Your task to perform on an android device: Open Reddit.com Image 0: 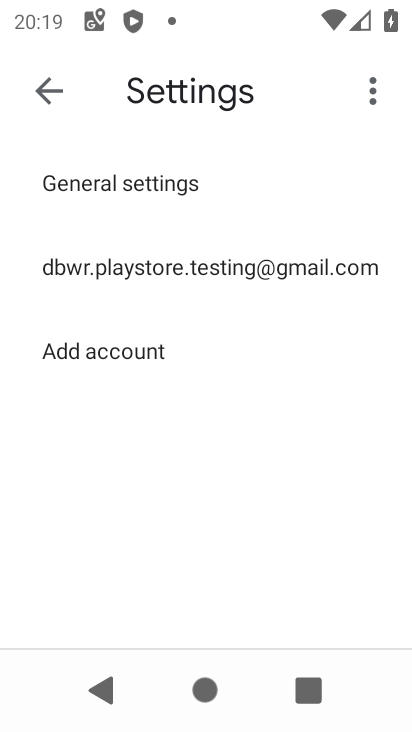
Step 0: press home button
Your task to perform on an android device: Open Reddit.com Image 1: 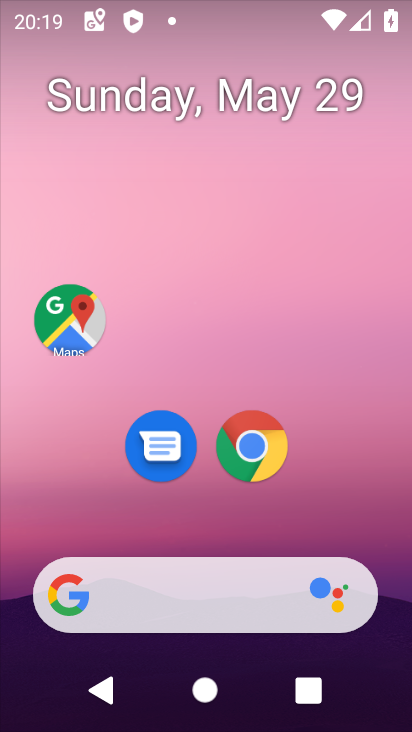
Step 1: click (251, 457)
Your task to perform on an android device: Open Reddit.com Image 2: 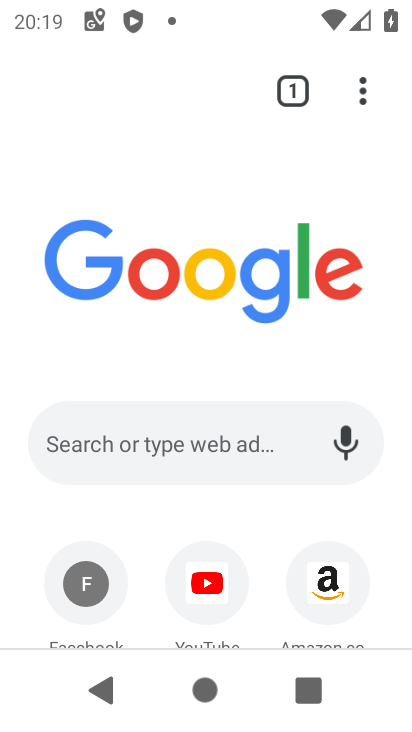
Step 2: click (207, 441)
Your task to perform on an android device: Open Reddit.com Image 3: 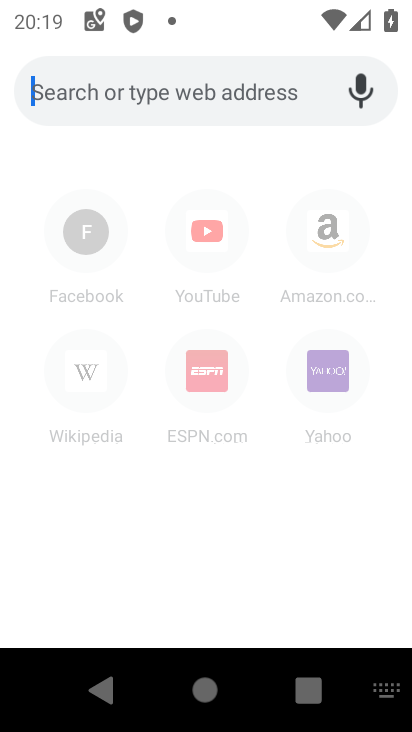
Step 3: type "reddit.vcom"
Your task to perform on an android device: Open Reddit.com Image 4: 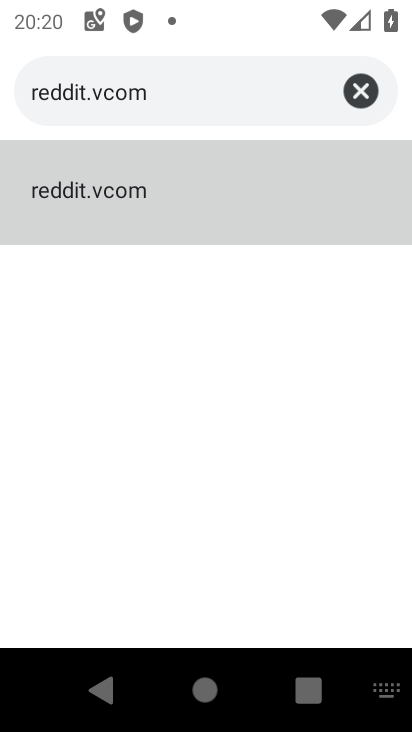
Step 4: click (366, 96)
Your task to perform on an android device: Open Reddit.com Image 5: 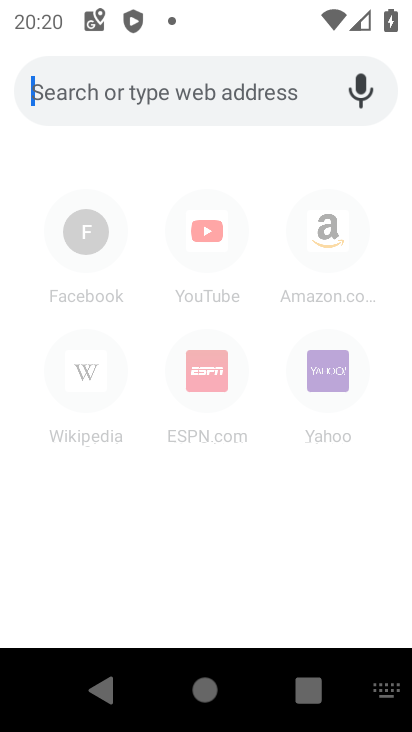
Step 5: type "reddit.com"
Your task to perform on an android device: Open Reddit.com Image 6: 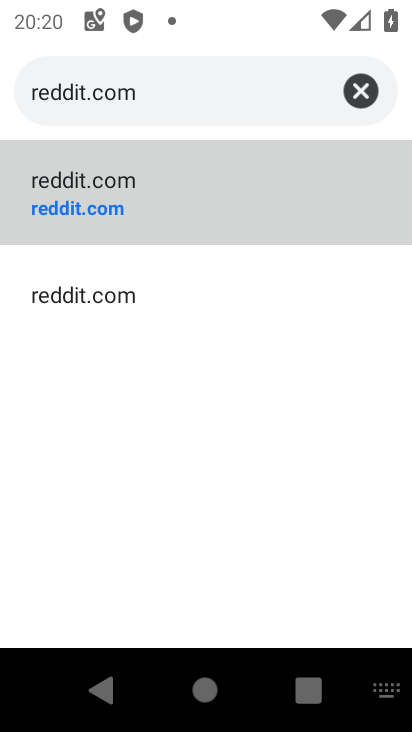
Step 6: click (172, 221)
Your task to perform on an android device: Open Reddit.com Image 7: 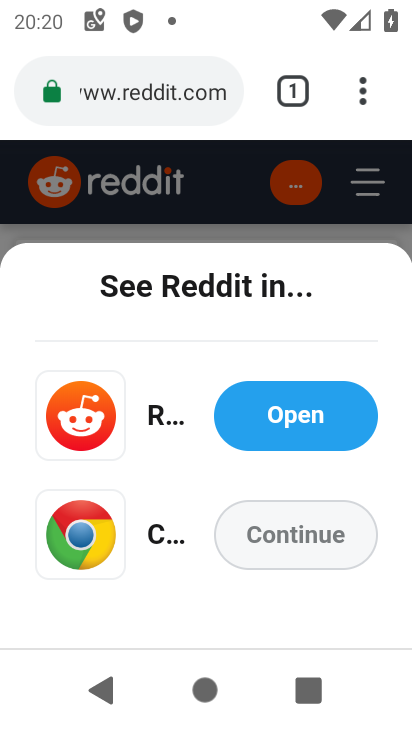
Step 7: click (347, 538)
Your task to perform on an android device: Open Reddit.com Image 8: 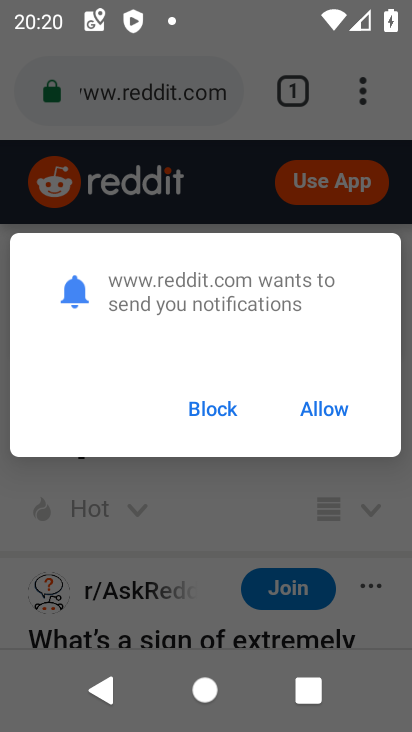
Step 8: task complete